Your task to perform on an android device: Open calendar and show me the third week of next month Image 0: 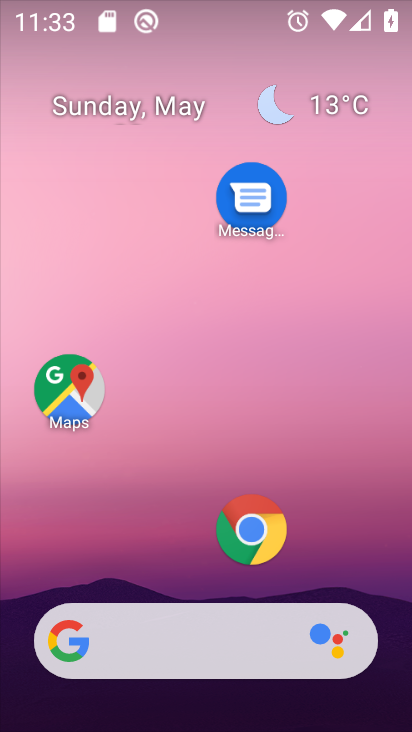
Step 0: drag from (163, 563) to (211, 15)
Your task to perform on an android device: Open calendar and show me the third week of next month Image 1: 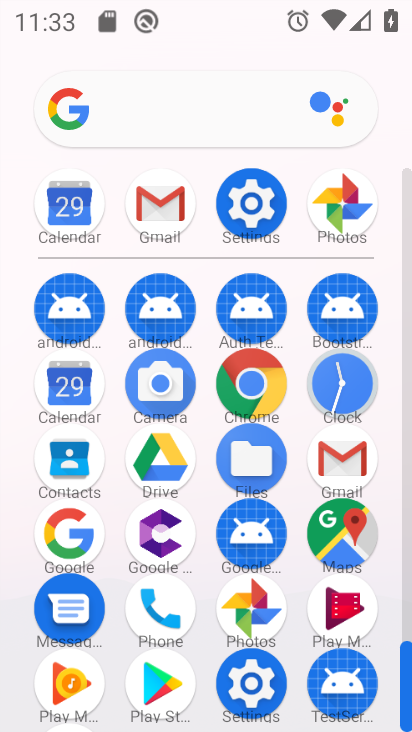
Step 1: click (81, 392)
Your task to perform on an android device: Open calendar and show me the third week of next month Image 2: 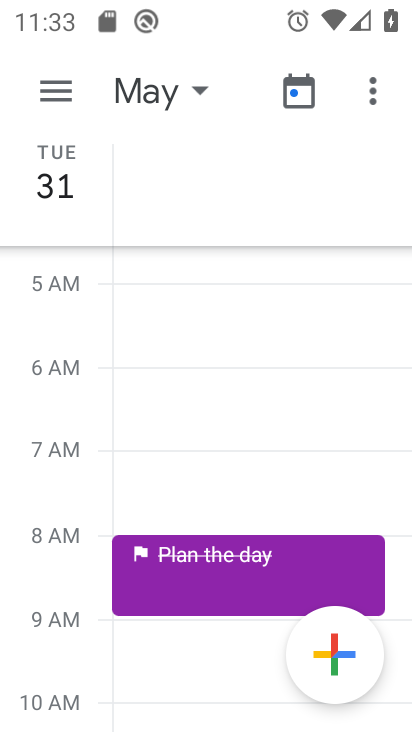
Step 2: click (56, 91)
Your task to perform on an android device: Open calendar and show me the third week of next month Image 3: 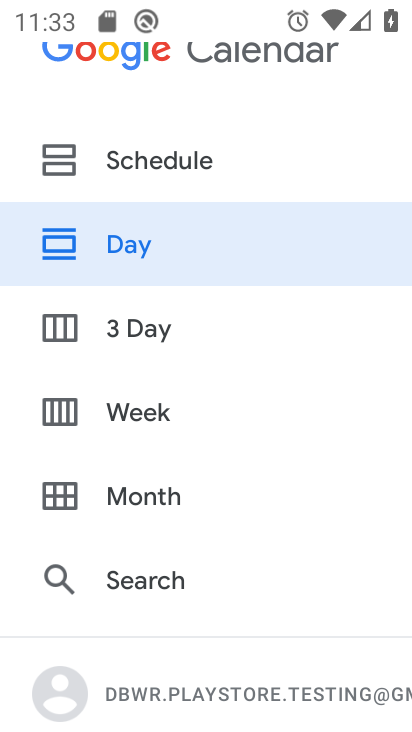
Step 3: click (147, 435)
Your task to perform on an android device: Open calendar and show me the third week of next month Image 4: 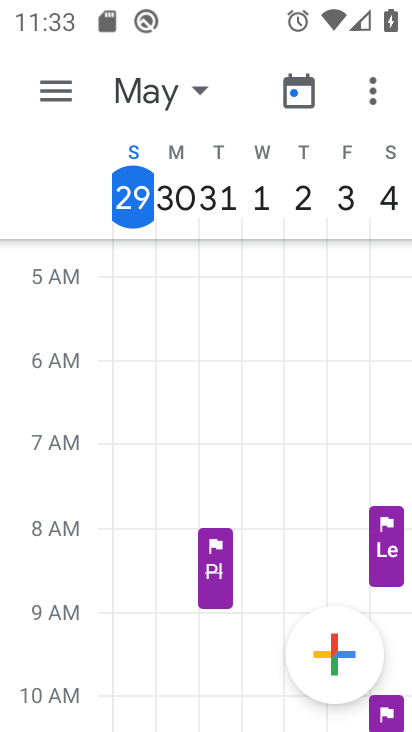
Step 4: task complete